Your task to perform on an android device: stop showing notifications on the lock screen Image 0: 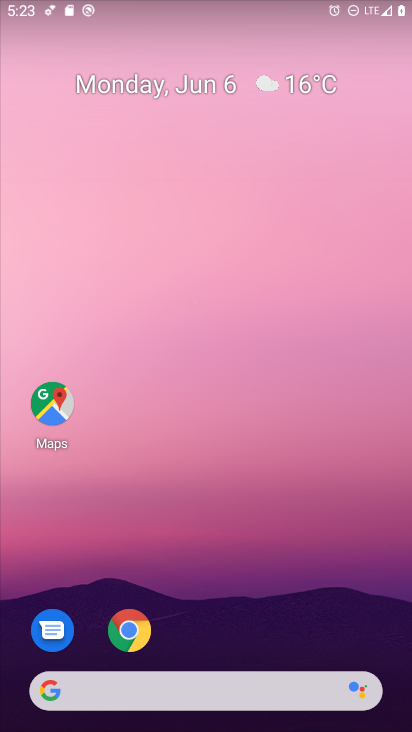
Step 0: drag from (289, 568) to (130, 31)
Your task to perform on an android device: stop showing notifications on the lock screen Image 1: 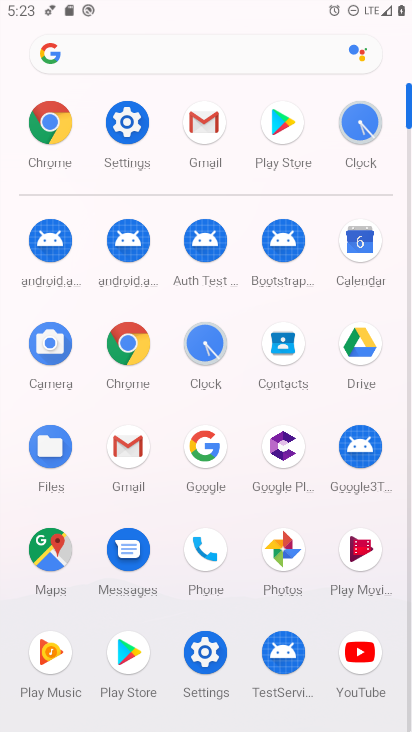
Step 1: click (123, 125)
Your task to perform on an android device: stop showing notifications on the lock screen Image 2: 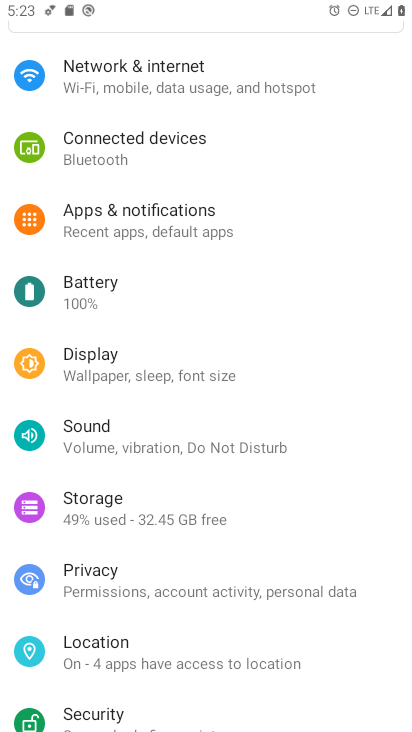
Step 2: click (187, 233)
Your task to perform on an android device: stop showing notifications on the lock screen Image 3: 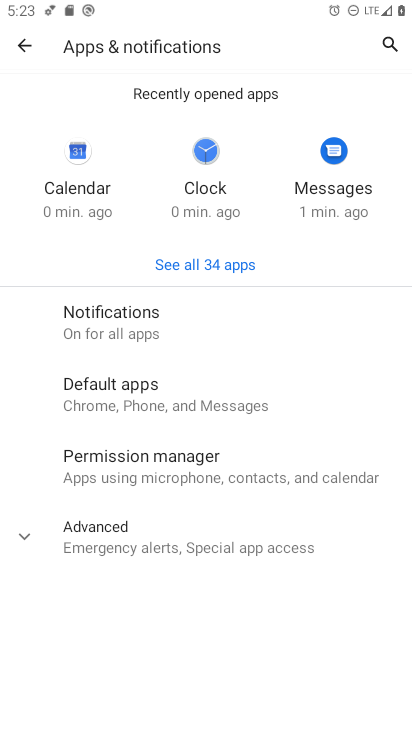
Step 3: click (227, 326)
Your task to perform on an android device: stop showing notifications on the lock screen Image 4: 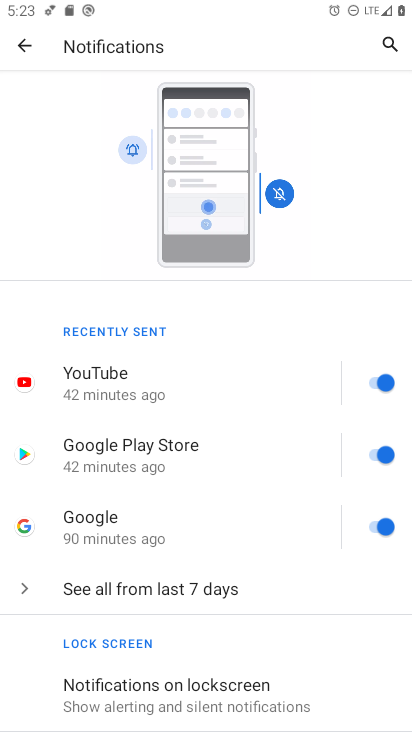
Step 4: click (223, 694)
Your task to perform on an android device: stop showing notifications on the lock screen Image 5: 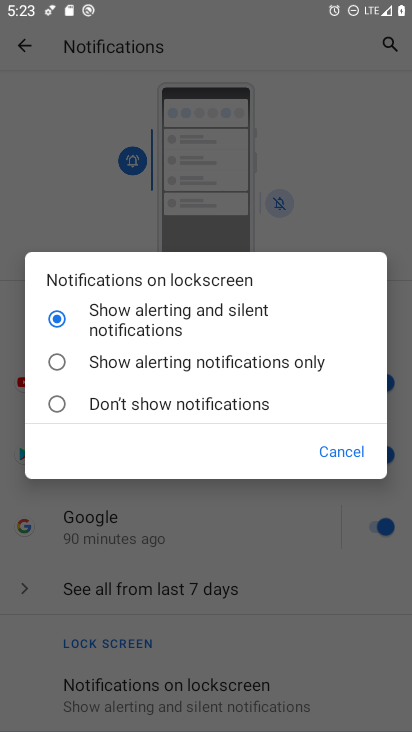
Step 5: click (229, 399)
Your task to perform on an android device: stop showing notifications on the lock screen Image 6: 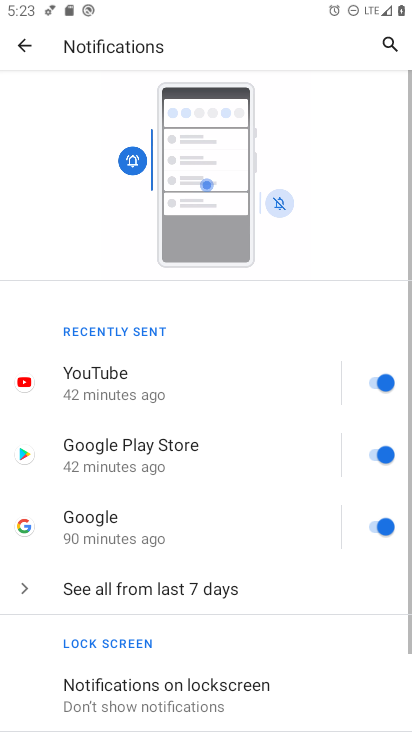
Step 6: task complete